Your task to perform on an android device: Open network settings Image 0: 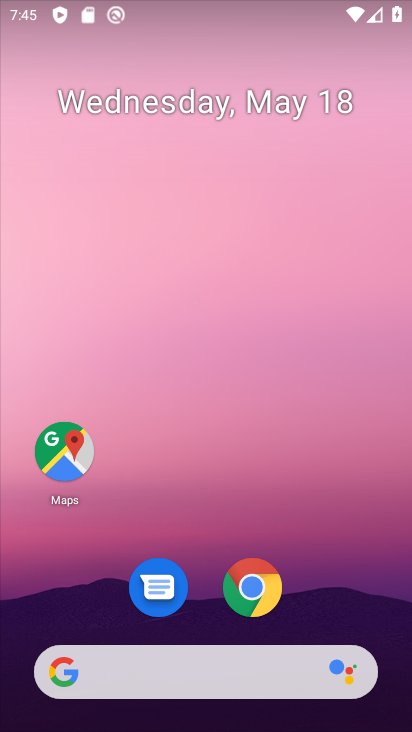
Step 0: drag from (265, 680) to (314, 211)
Your task to perform on an android device: Open network settings Image 1: 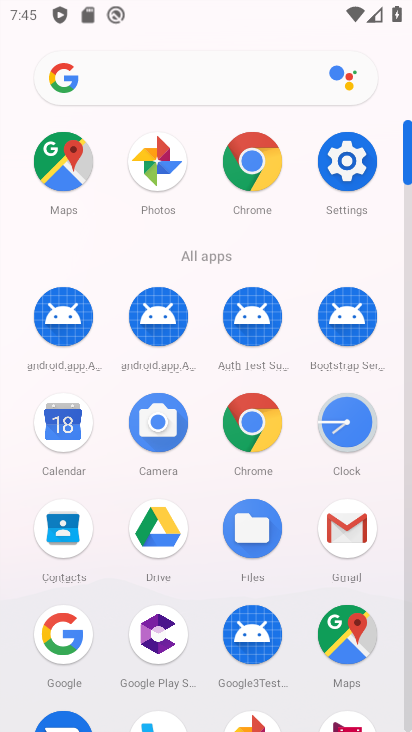
Step 1: click (350, 170)
Your task to perform on an android device: Open network settings Image 2: 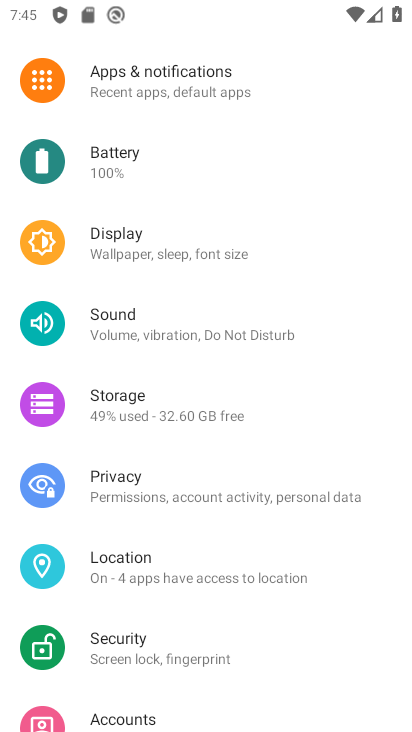
Step 2: drag from (263, 279) to (209, 673)
Your task to perform on an android device: Open network settings Image 3: 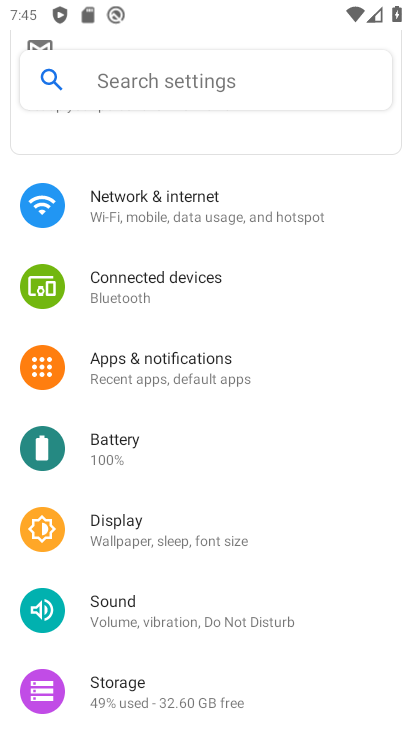
Step 3: click (233, 222)
Your task to perform on an android device: Open network settings Image 4: 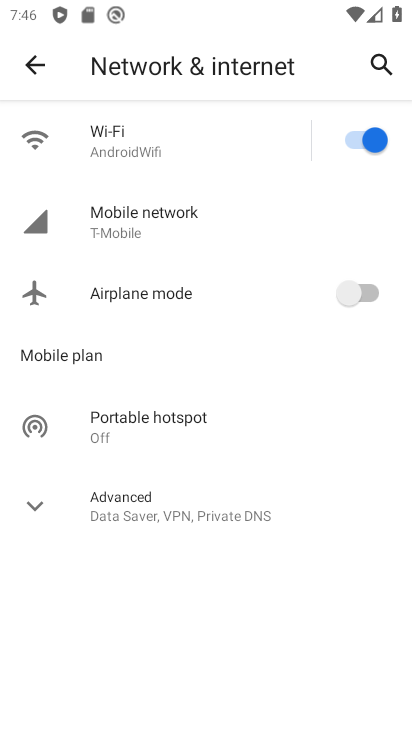
Step 4: click (209, 228)
Your task to perform on an android device: Open network settings Image 5: 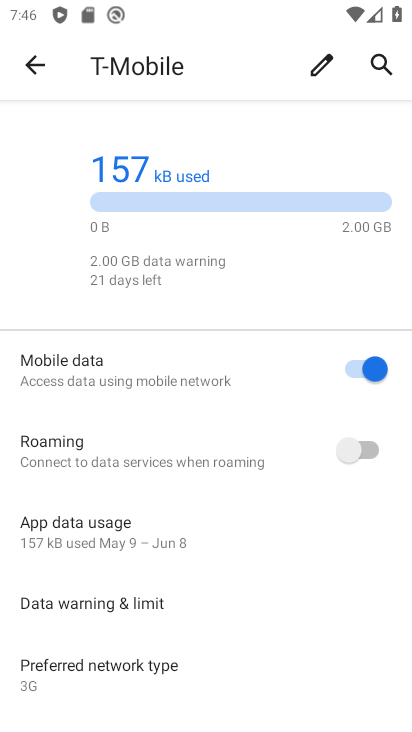
Step 5: click (145, 537)
Your task to perform on an android device: Open network settings Image 6: 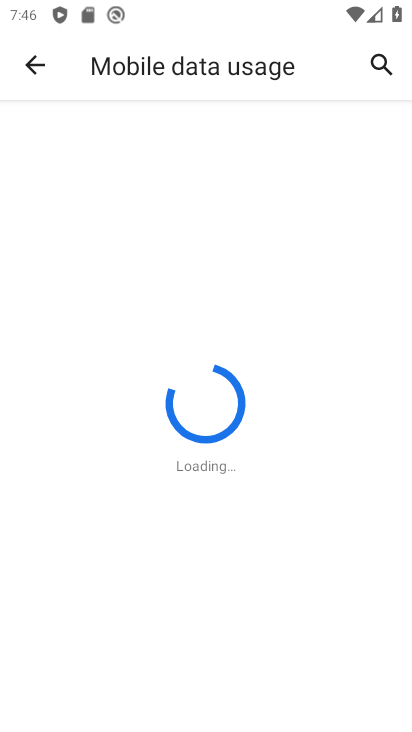
Step 6: task complete